Your task to perform on an android device: Is it going to rain tomorrow? Image 0: 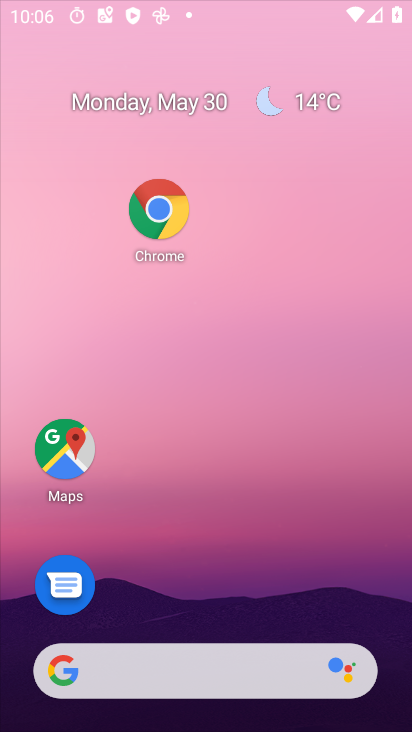
Step 0: drag from (402, 526) to (383, 18)
Your task to perform on an android device: Is it going to rain tomorrow? Image 1: 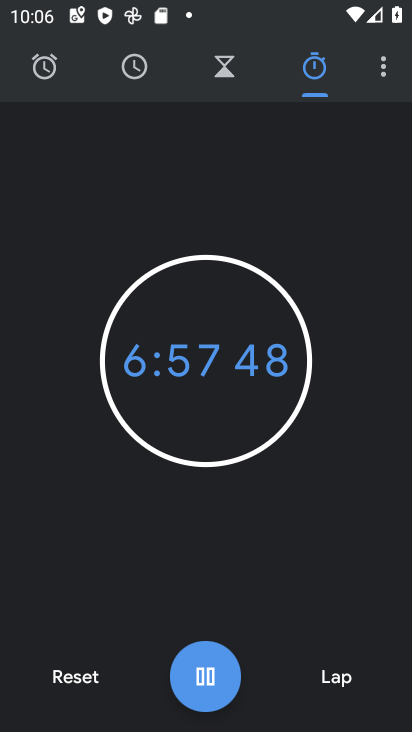
Step 1: press home button
Your task to perform on an android device: Is it going to rain tomorrow? Image 2: 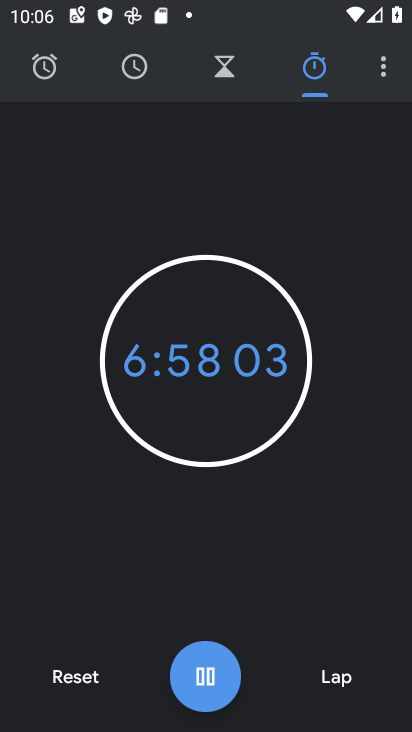
Step 2: press home button
Your task to perform on an android device: Is it going to rain tomorrow? Image 3: 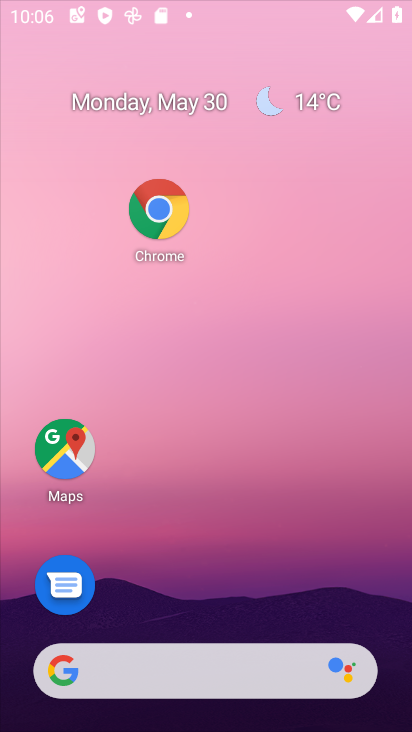
Step 3: drag from (86, 534) to (210, 43)
Your task to perform on an android device: Is it going to rain tomorrow? Image 4: 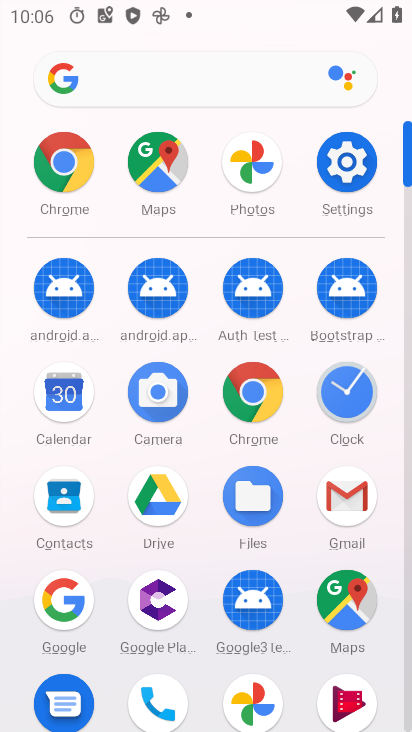
Step 4: click (107, 68)
Your task to perform on an android device: Is it going to rain tomorrow? Image 5: 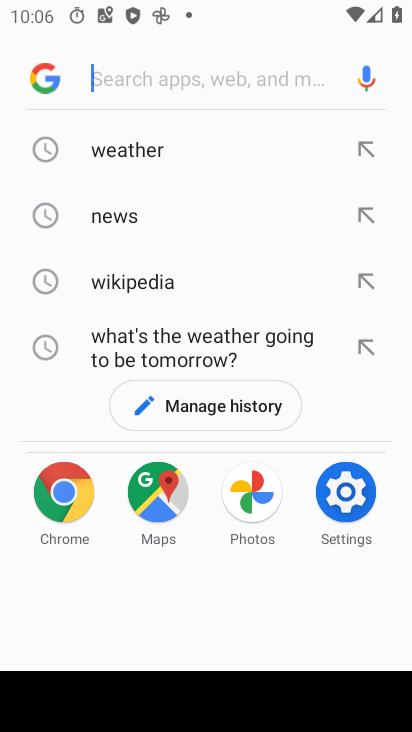
Step 5: type "rain tomorrow"
Your task to perform on an android device: Is it going to rain tomorrow? Image 6: 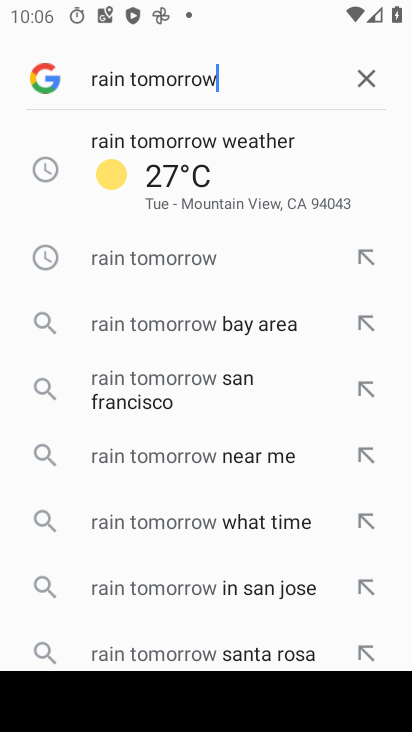
Step 6: click (206, 147)
Your task to perform on an android device: Is it going to rain tomorrow? Image 7: 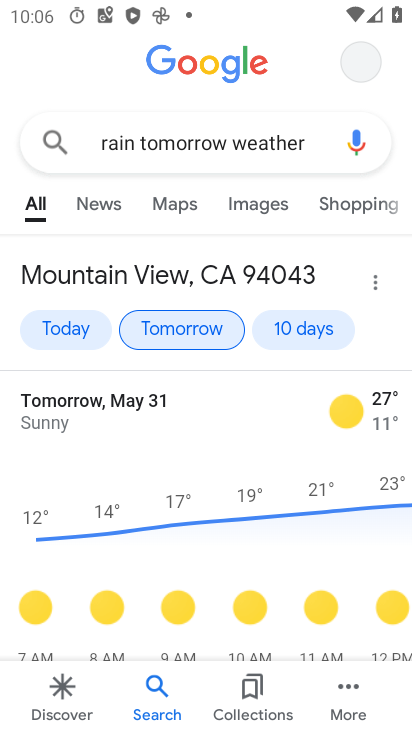
Step 7: task complete